Your task to perform on an android device: open app "DoorDash - Food Delivery" Image 0: 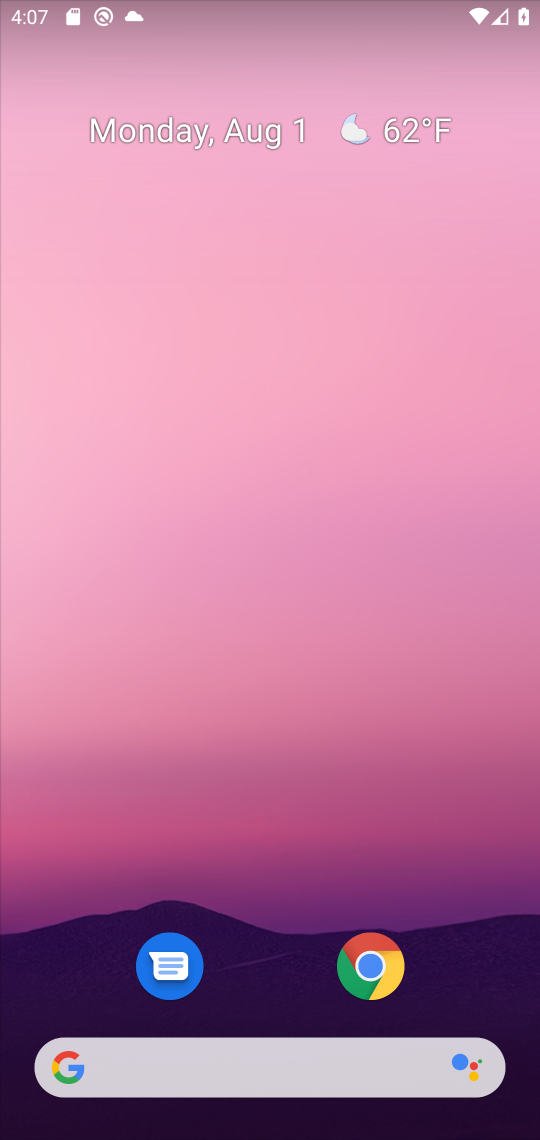
Step 0: drag from (220, 1055) to (207, 255)
Your task to perform on an android device: open app "DoorDash - Food Delivery" Image 1: 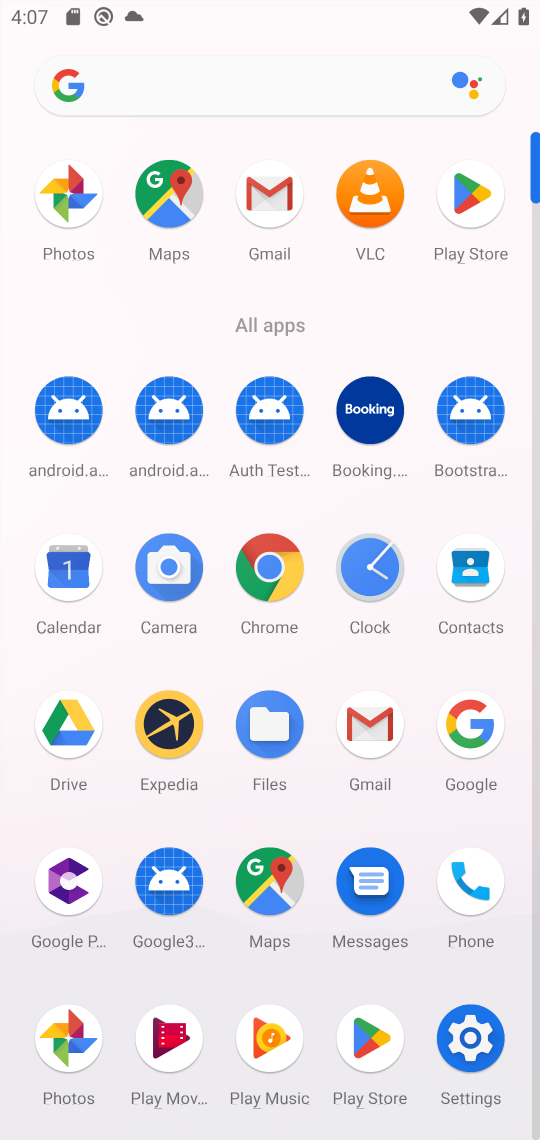
Step 1: click (473, 204)
Your task to perform on an android device: open app "DoorDash - Food Delivery" Image 2: 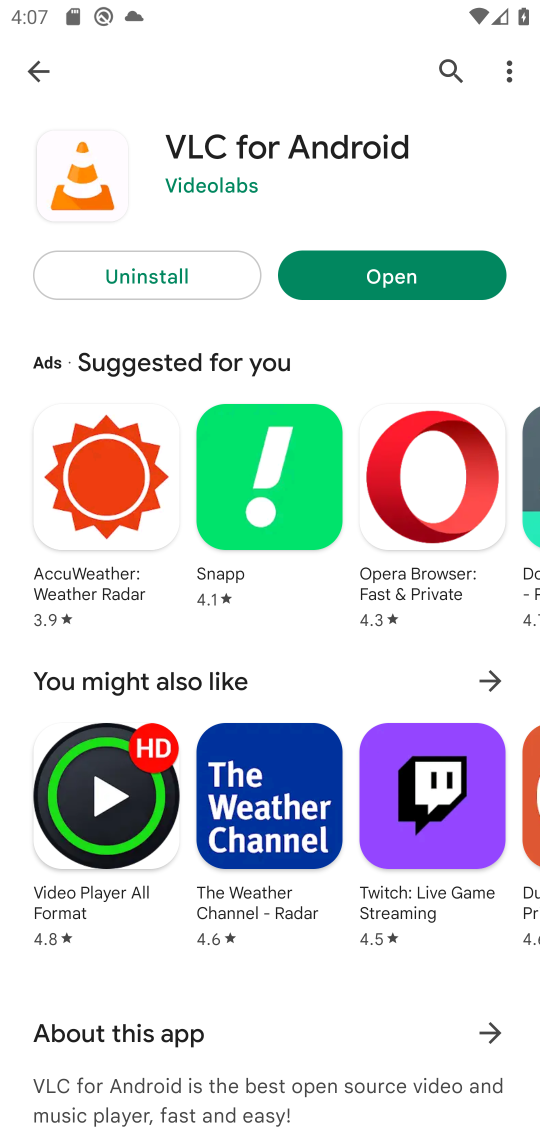
Step 2: click (32, 66)
Your task to perform on an android device: open app "DoorDash - Food Delivery" Image 3: 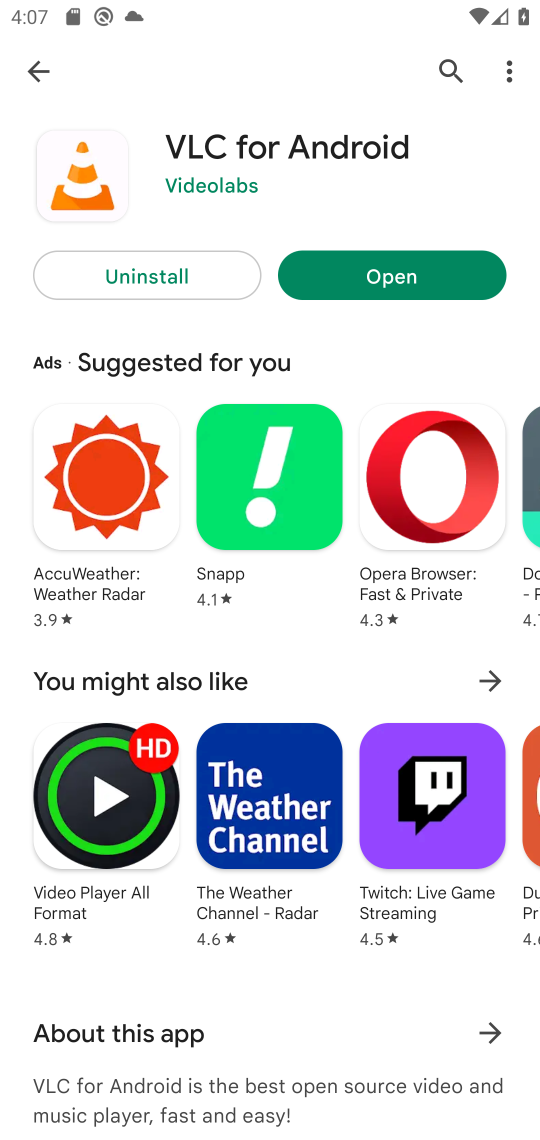
Step 3: click (420, 78)
Your task to perform on an android device: open app "DoorDash - Food Delivery" Image 4: 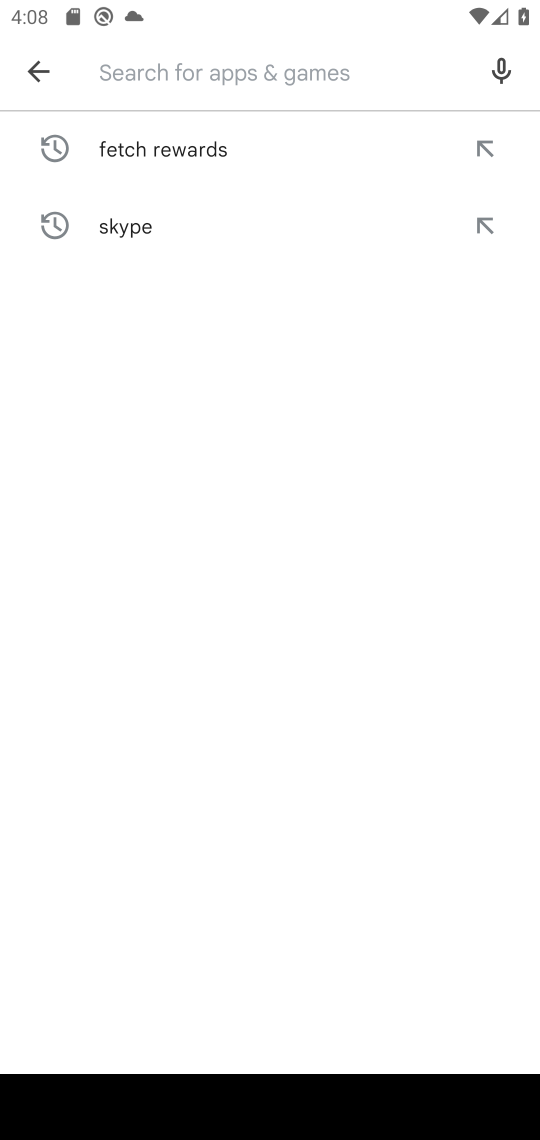
Step 4: type "DoorDash - Food Delivery"
Your task to perform on an android device: open app "DoorDash - Food Delivery" Image 5: 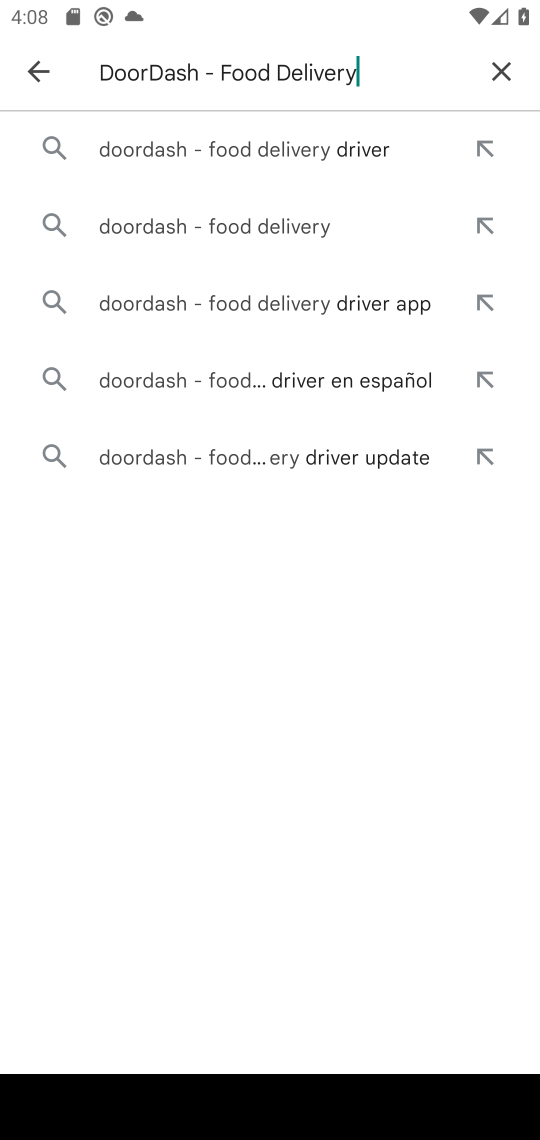
Step 5: click (370, 153)
Your task to perform on an android device: open app "DoorDash - Food Delivery" Image 6: 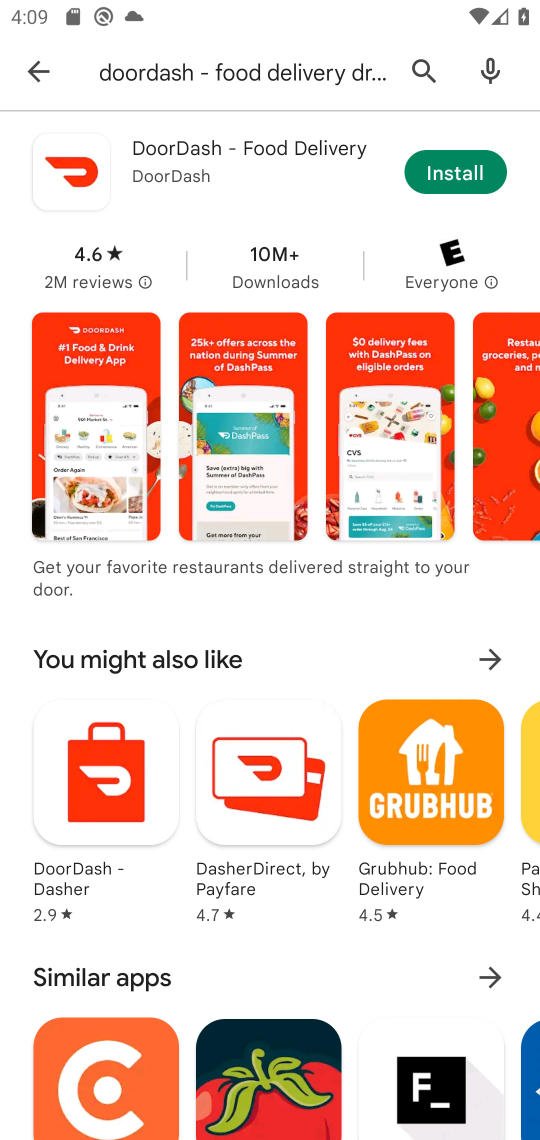
Step 6: click (423, 169)
Your task to perform on an android device: open app "DoorDash - Food Delivery" Image 7: 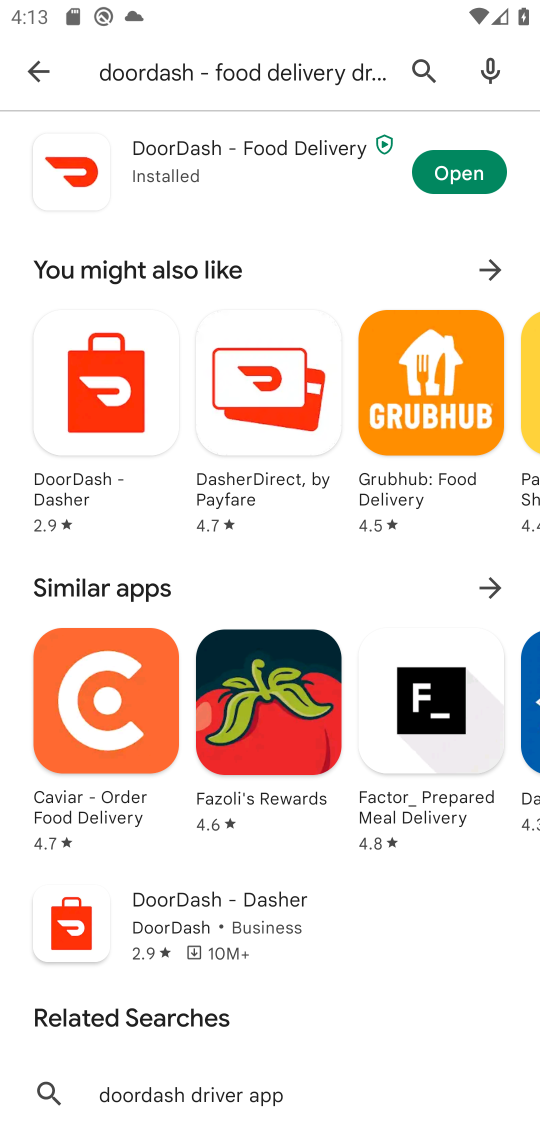
Step 7: click (440, 163)
Your task to perform on an android device: open app "DoorDash - Food Delivery" Image 8: 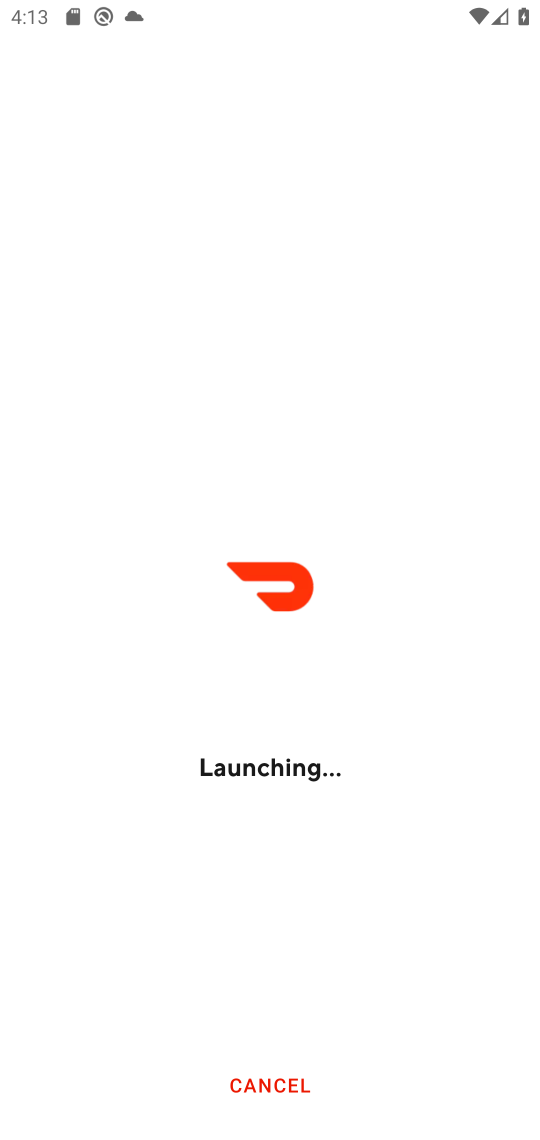
Step 8: task complete